Your task to perform on an android device: Clear the shopping cart on bestbuy. Search for alienware area 51 on bestbuy, select the first entry, and add it to the cart. Image 0: 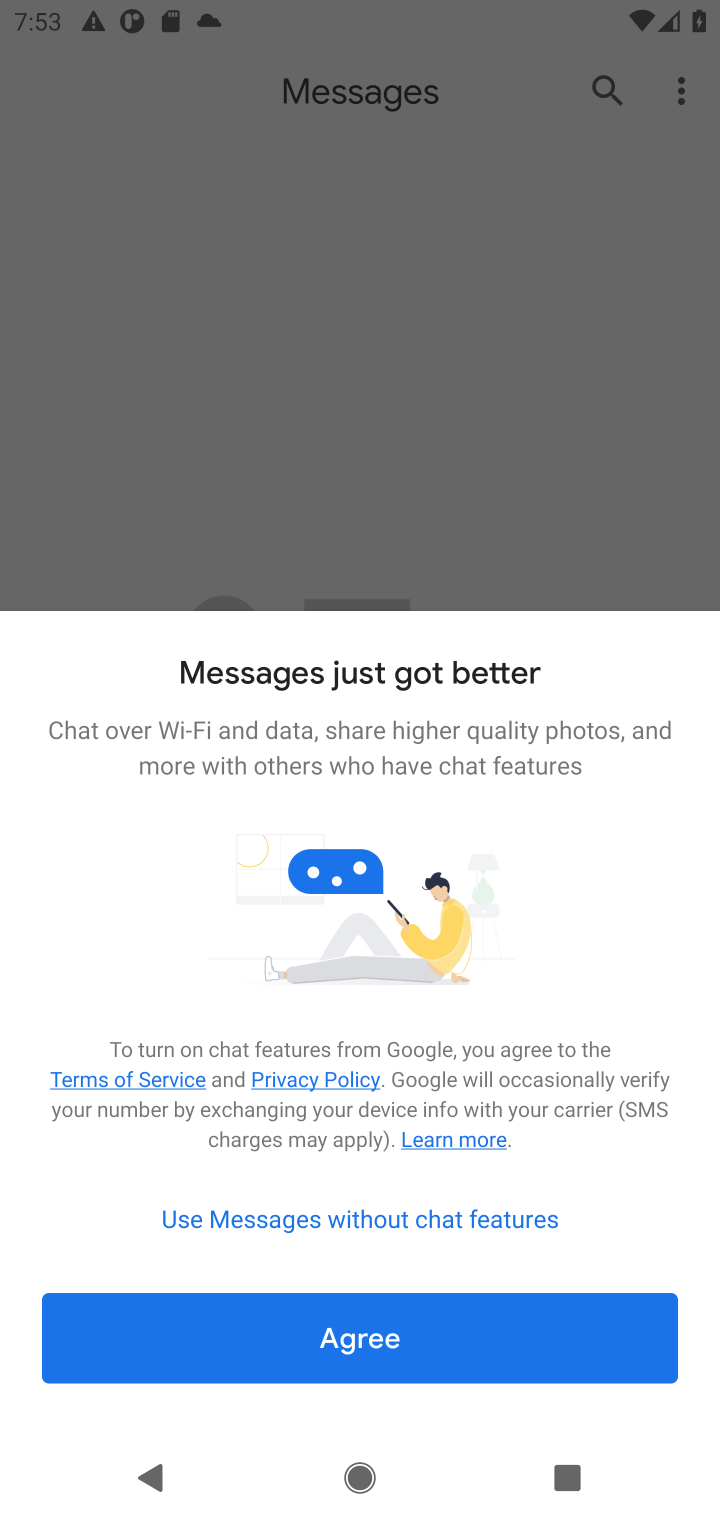
Step 0: press home button
Your task to perform on an android device: Clear the shopping cart on bestbuy. Search for alienware area 51 on bestbuy, select the first entry, and add it to the cart. Image 1: 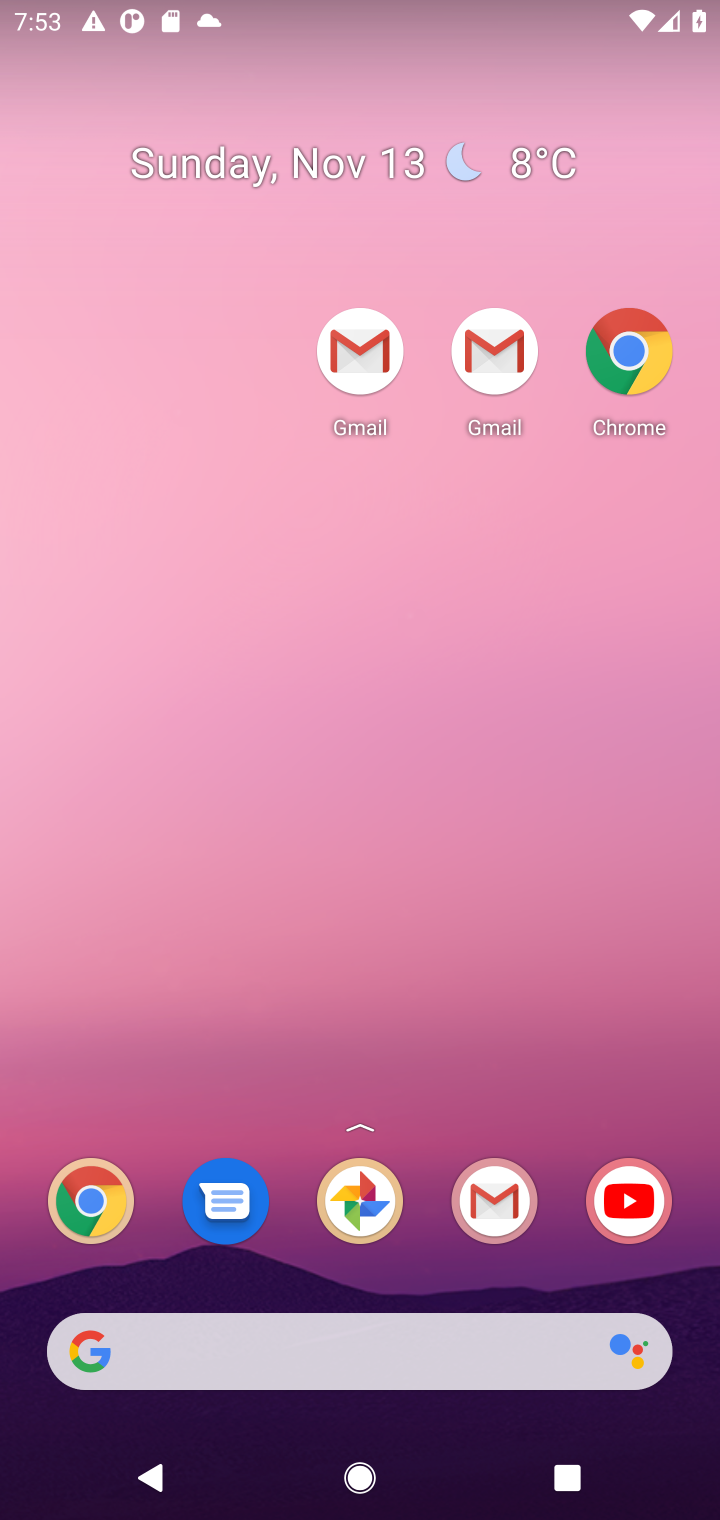
Step 1: drag from (426, 1278) to (229, 193)
Your task to perform on an android device: Clear the shopping cart on bestbuy. Search for alienware area 51 on bestbuy, select the first entry, and add it to the cart. Image 2: 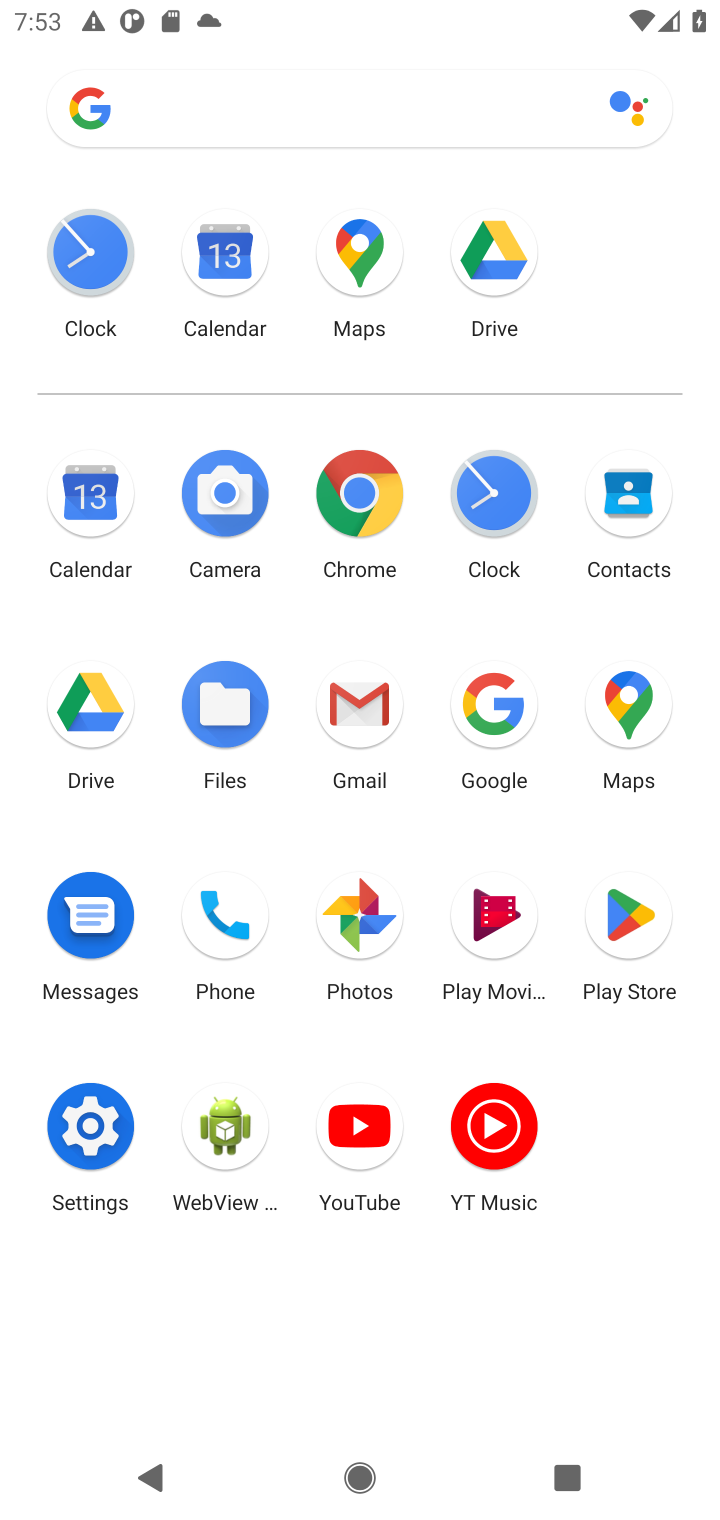
Step 2: click (364, 495)
Your task to perform on an android device: Clear the shopping cart on bestbuy. Search for alienware area 51 on bestbuy, select the first entry, and add it to the cart. Image 3: 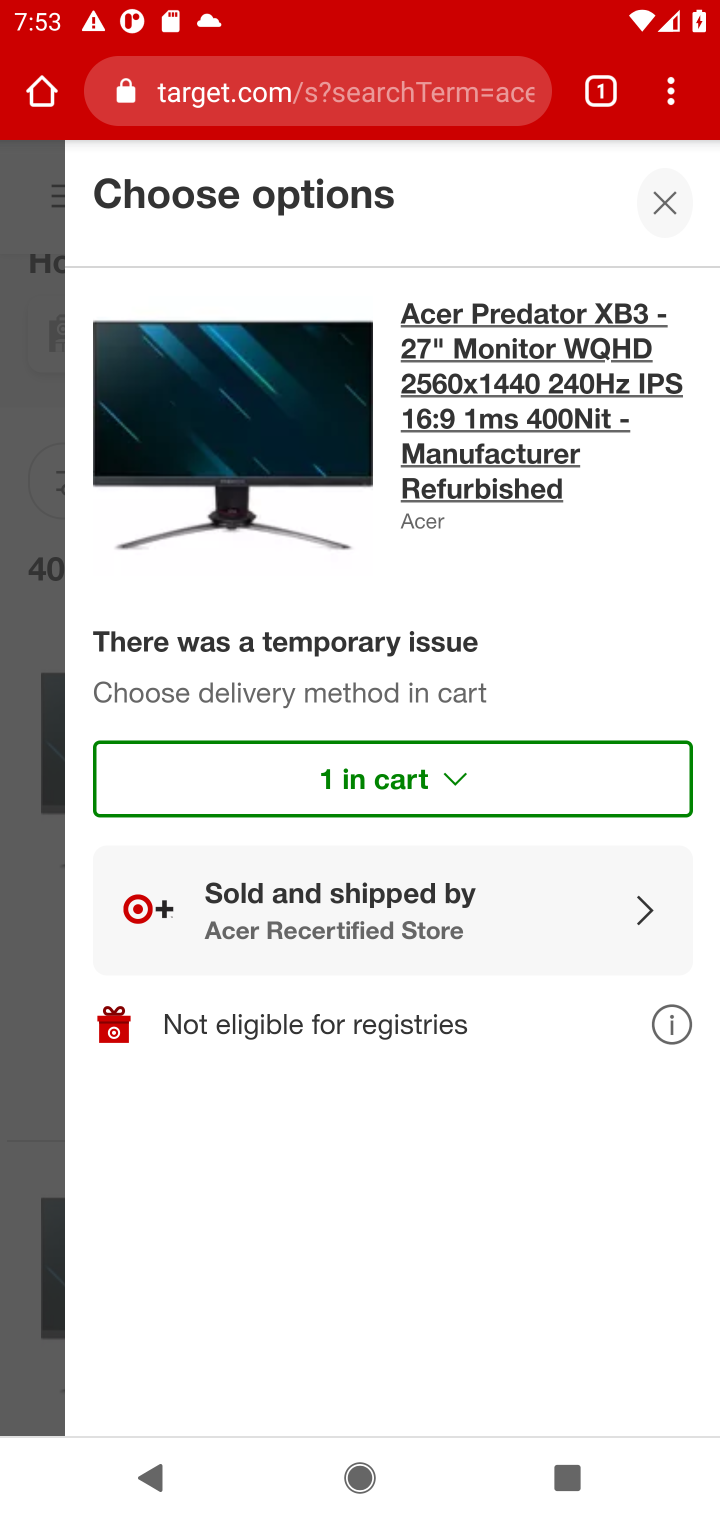
Step 3: click (445, 110)
Your task to perform on an android device: Clear the shopping cart on bestbuy. Search for alienware area 51 on bestbuy, select the first entry, and add it to the cart. Image 4: 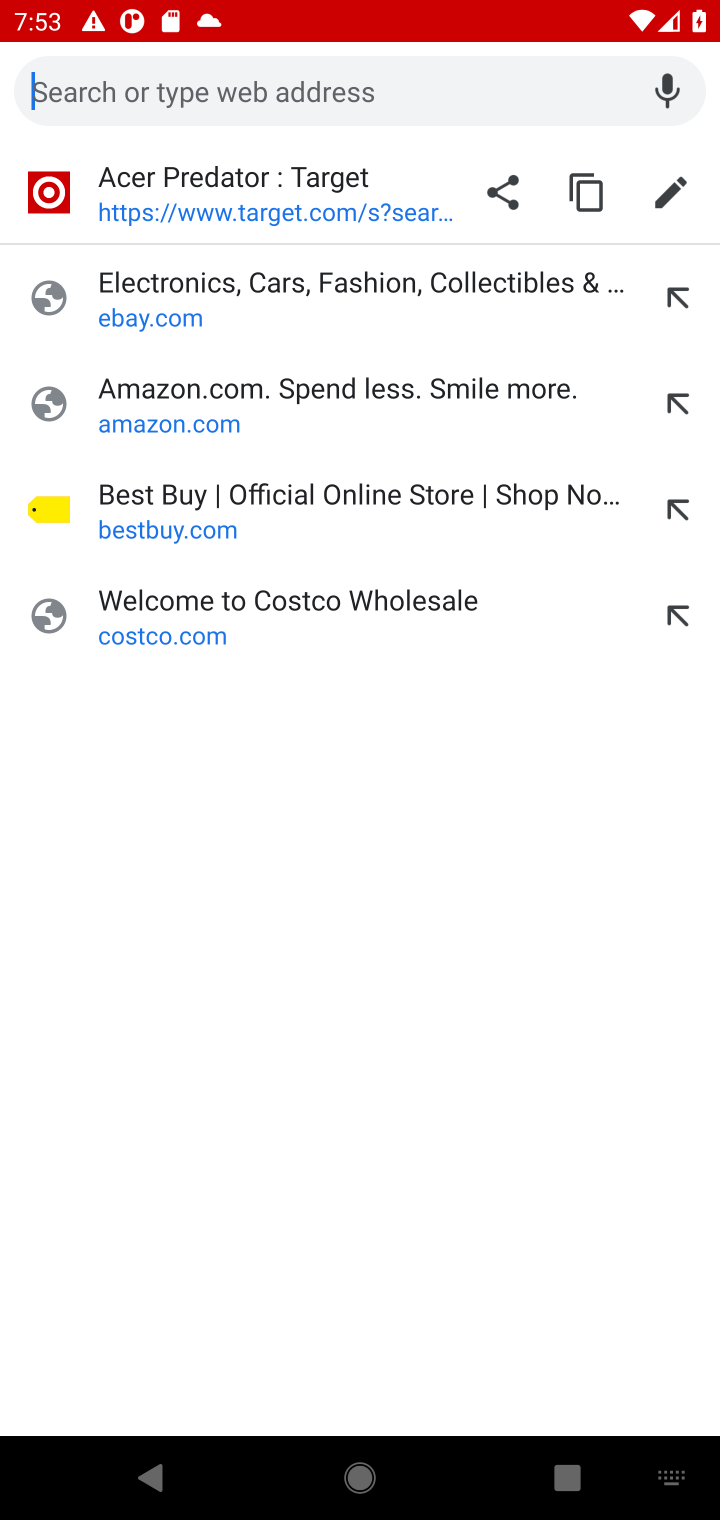
Step 4: type "bestbuy.com"
Your task to perform on an android device: Clear the shopping cart on bestbuy. Search for alienware area 51 on bestbuy, select the first entry, and add it to the cart. Image 5: 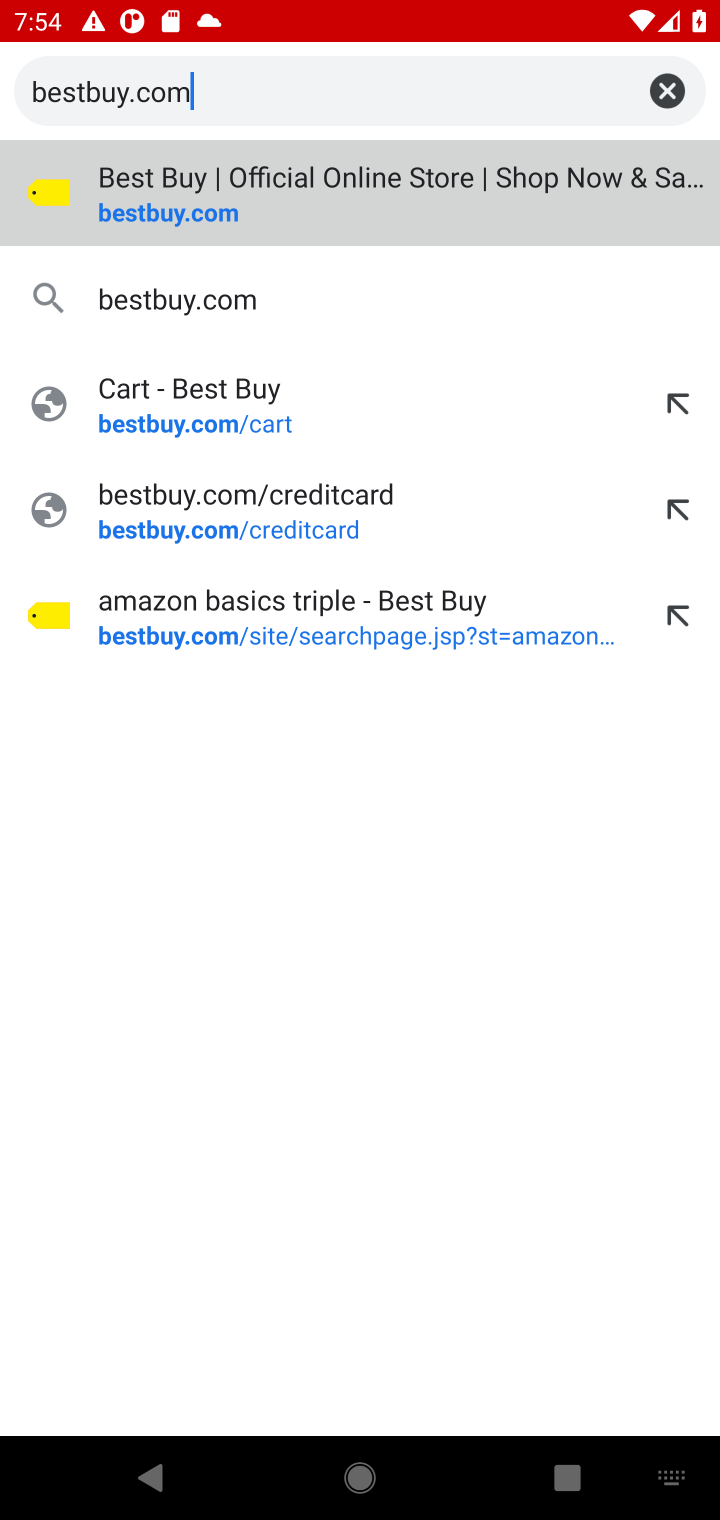
Step 5: press enter
Your task to perform on an android device: Clear the shopping cart on bestbuy. Search for alienware area 51 on bestbuy, select the first entry, and add it to the cart. Image 6: 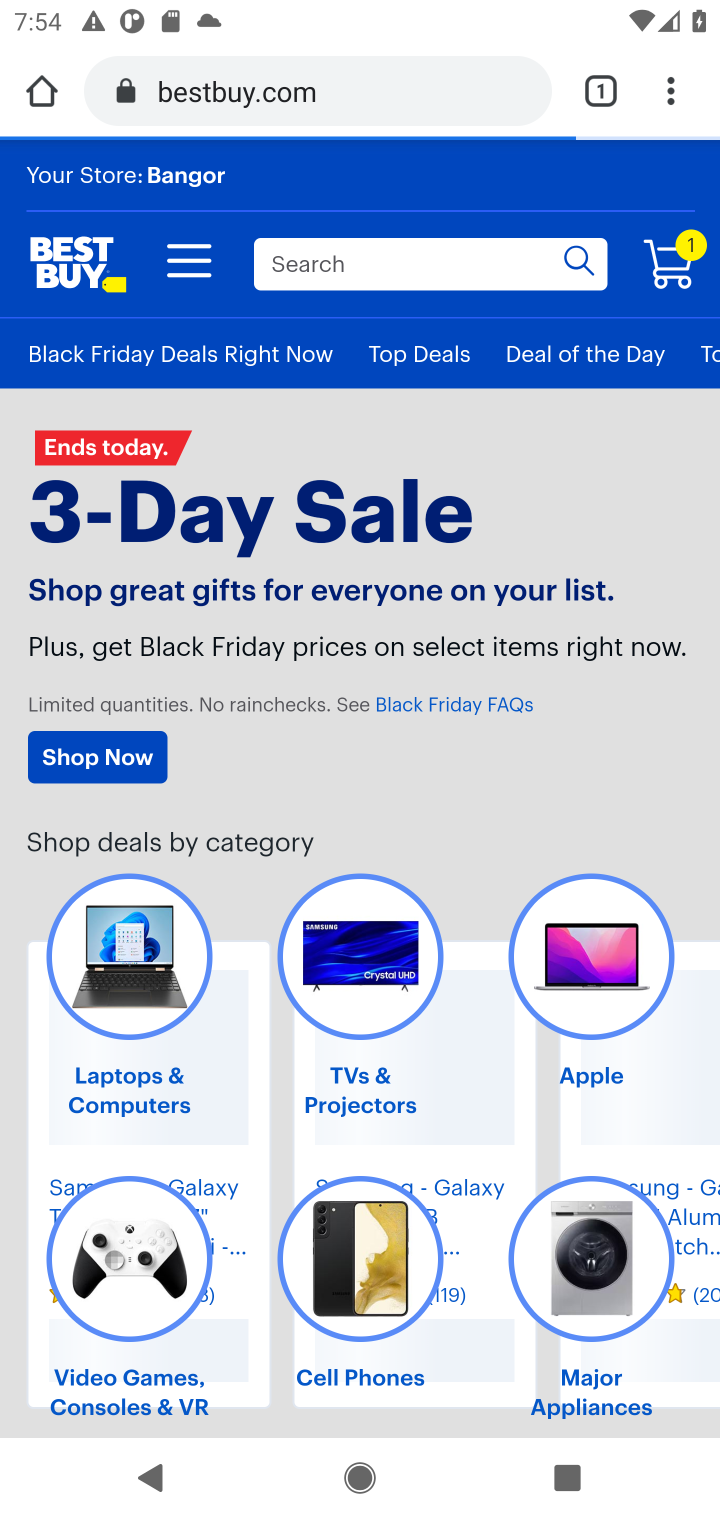
Step 6: click (667, 266)
Your task to perform on an android device: Clear the shopping cart on bestbuy. Search for alienware area 51 on bestbuy, select the first entry, and add it to the cart. Image 7: 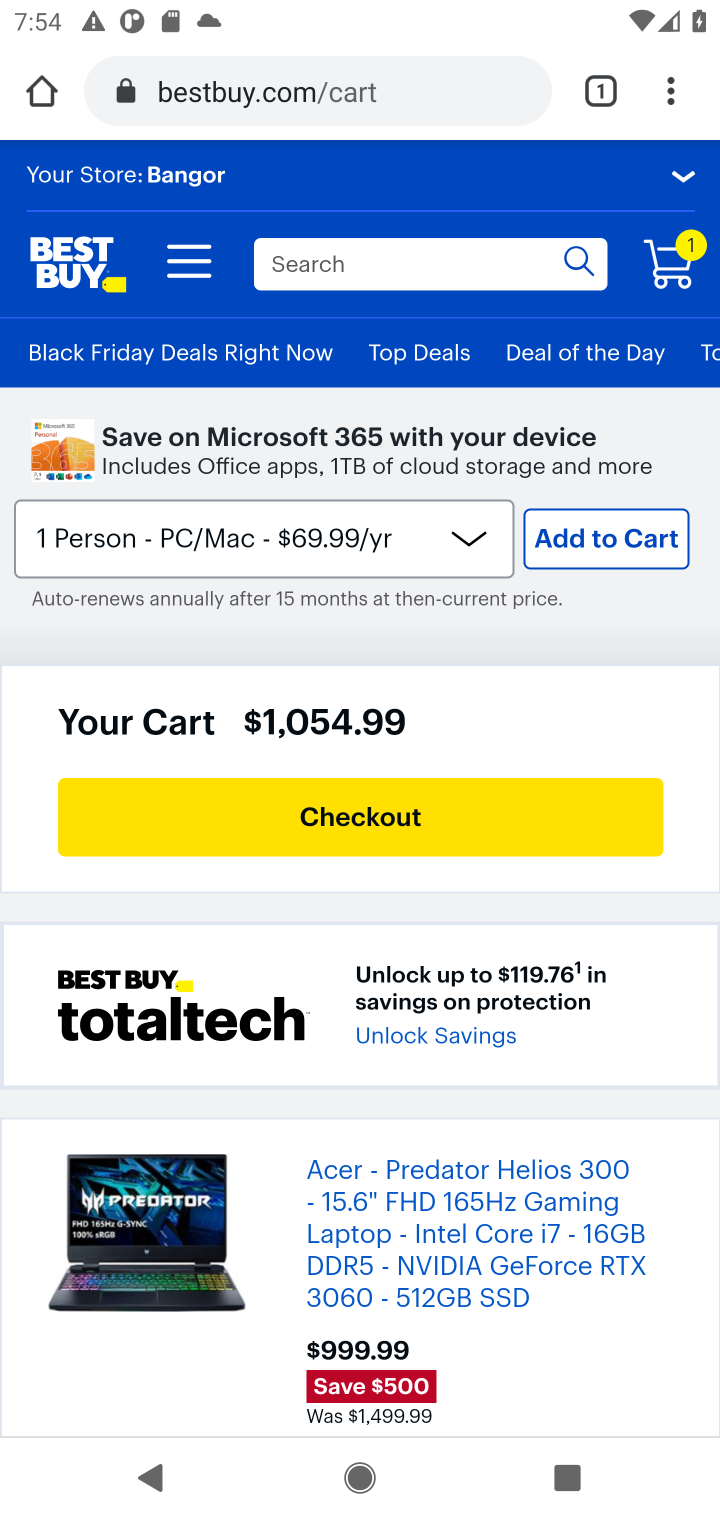
Step 7: drag from (556, 1405) to (327, 707)
Your task to perform on an android device: Clear the shopping cart on bestbuy. Search for alienware area 51 on bestbuy, select the first entry, and add it to the cart. Image 8: 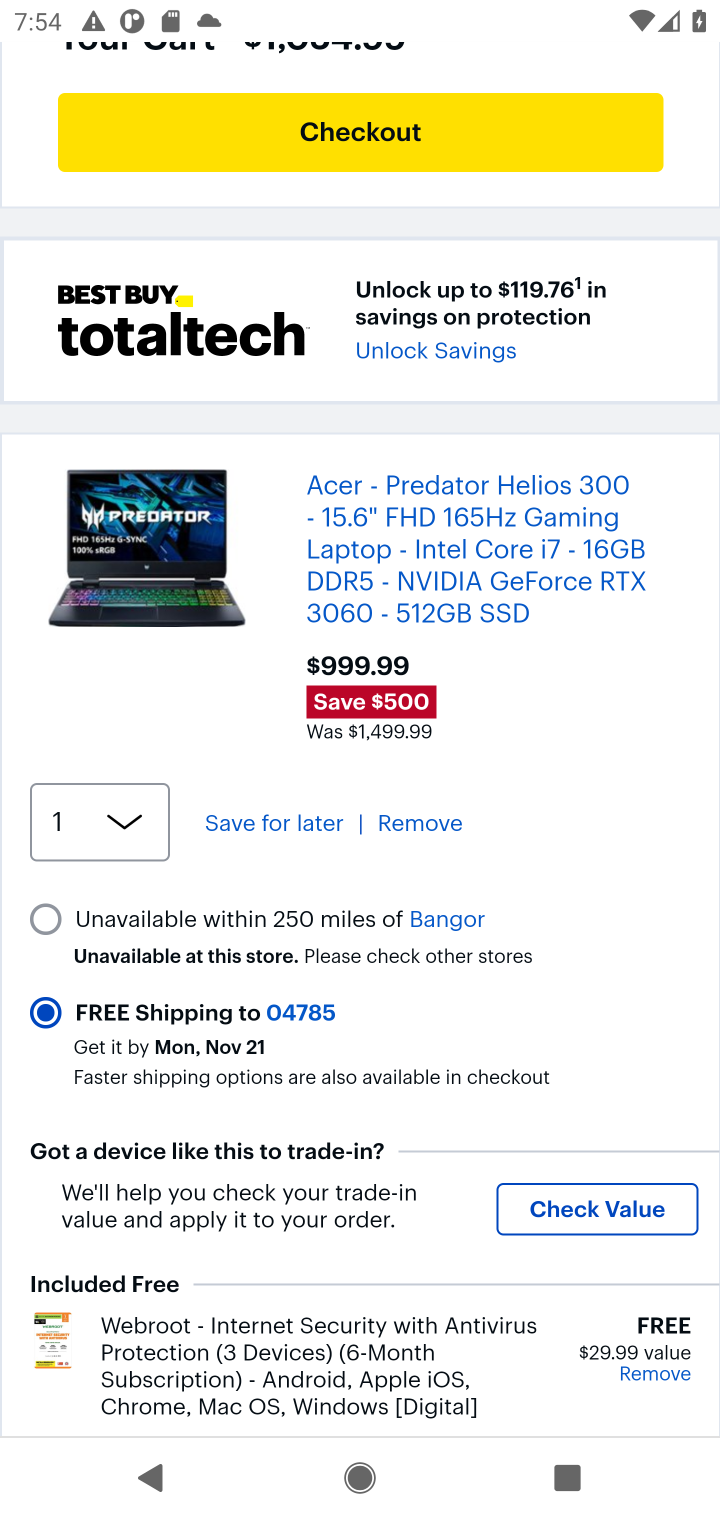
Step 8: click (422, 826)
Your task to perform on an android device: Clear the shopping cart on bestbuy. Search for alienware area 51 on bestbuy, select the first entry, and add it to the cart. Image 9: 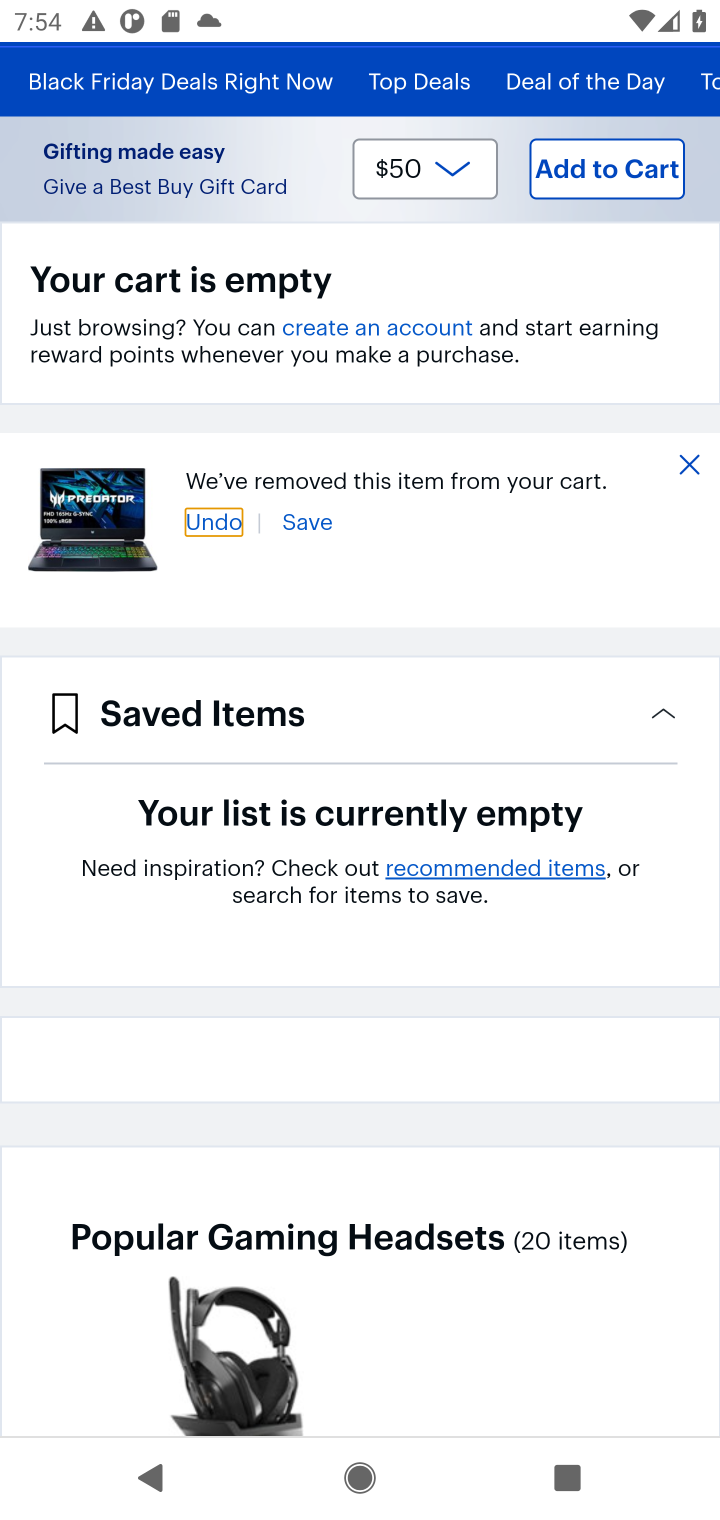
Step 9: drag from (461, 287) to (473, 609)
Your task to perform on an android device: Clear the shopping cart on bestbuy. Search for alienware area 51 on bestbuy, select the first entry, and add it to the cart. Image 10: 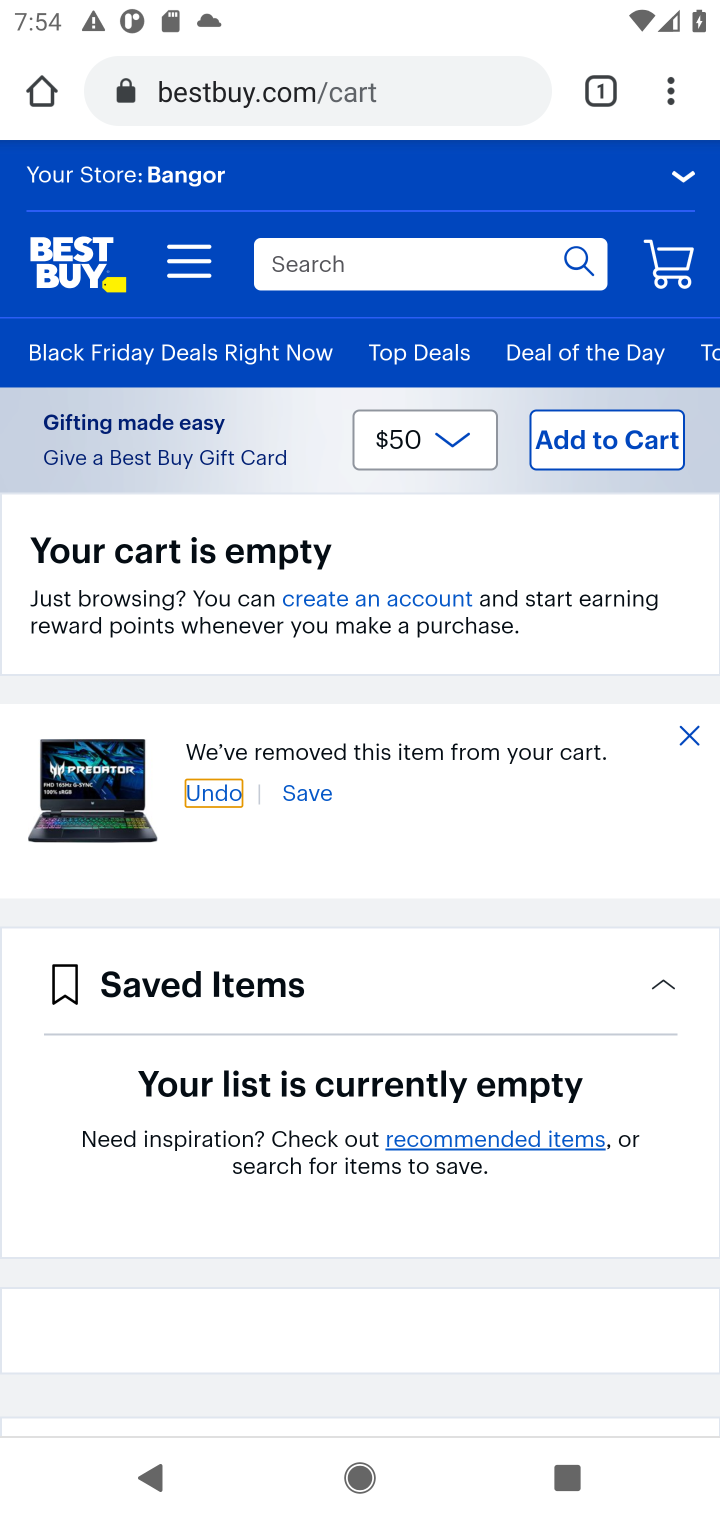
Step 10: click (427, 268)
Your task to perform on an android device: Clear the shopping cart on bestbuy. Search for alienware area 51 on bestbuy, select the first entry, and add it to the cart. Image 11: 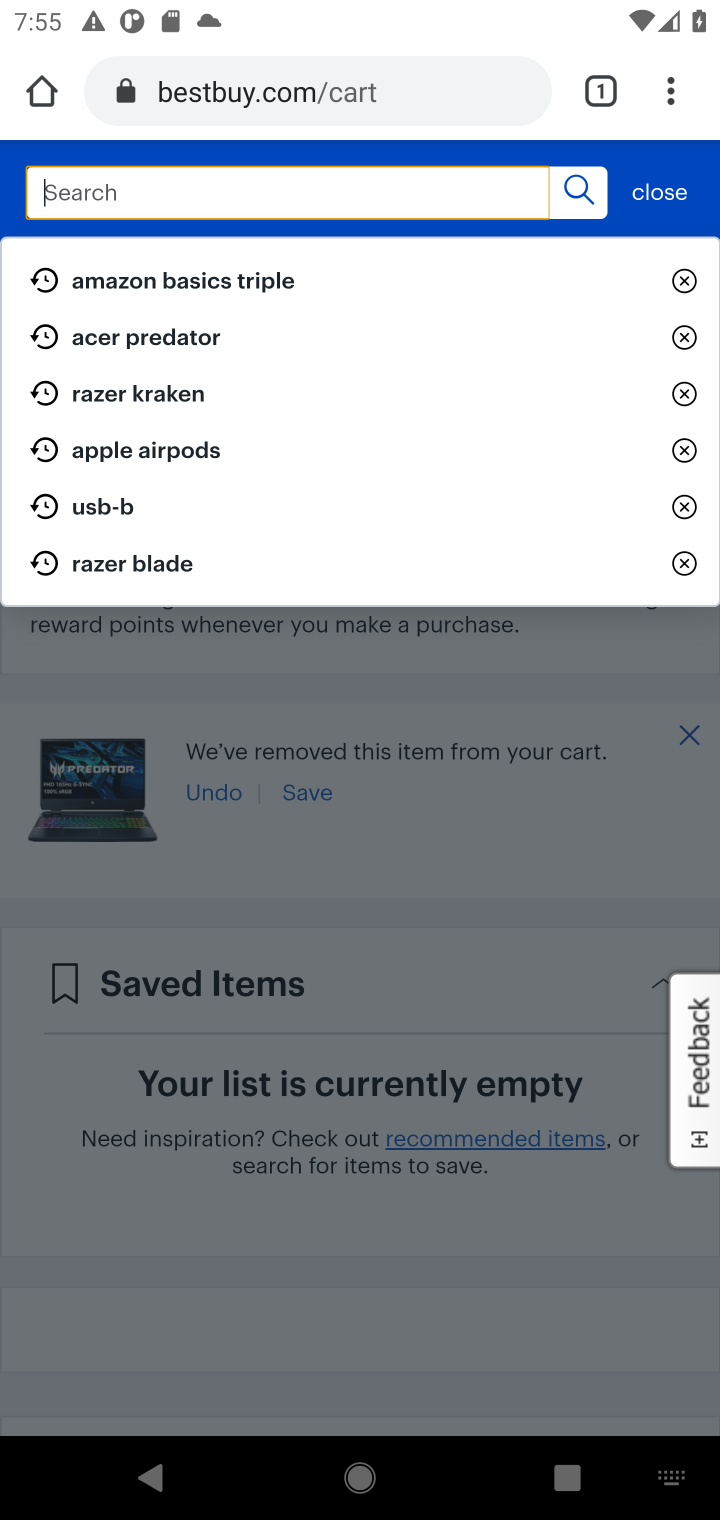
Step 11: type "alienware area 51"
Your task to perform on an android device: Clear the shopping cart on bestbuy. Search for alienware area 51 on bestbuy, select the first entry, and add it to the cart. Image 12: 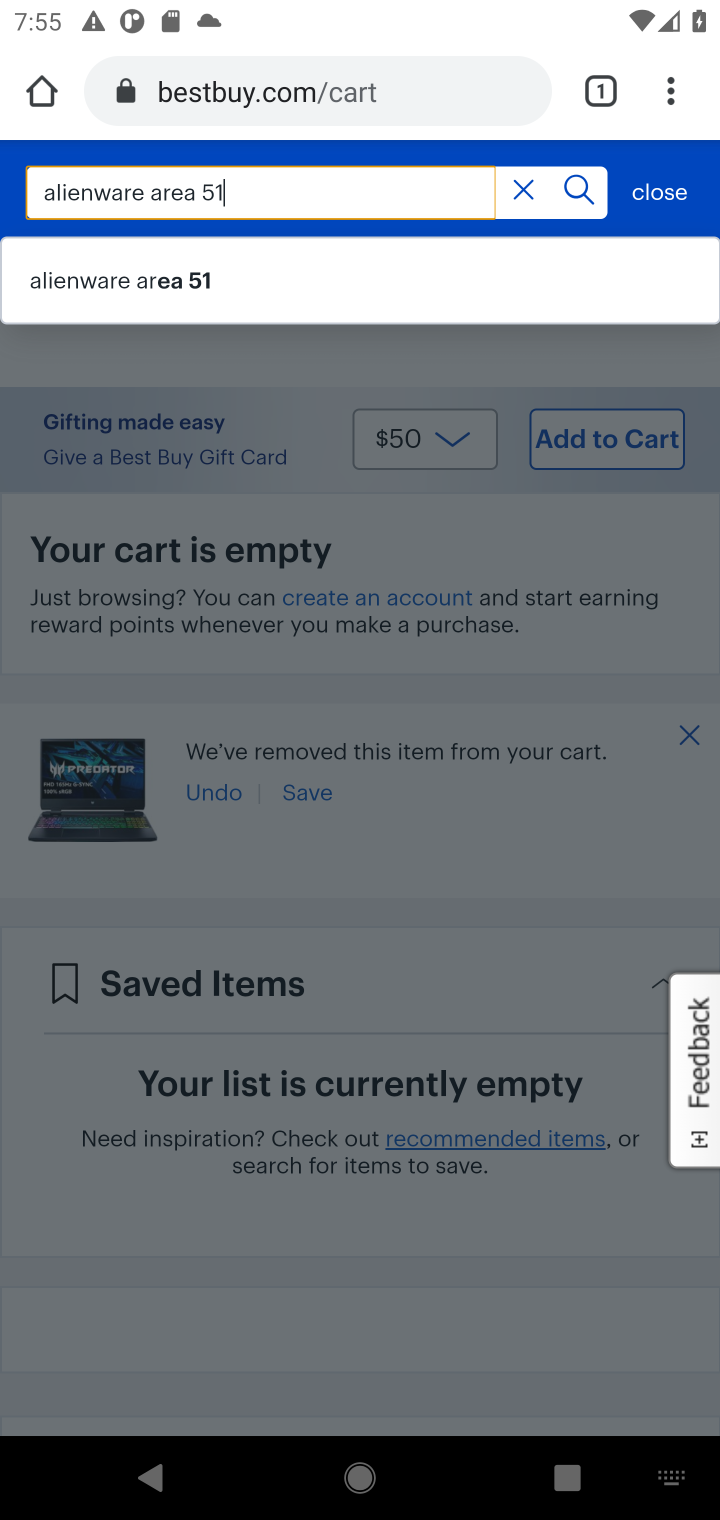
Step 12: press enter
Your task to perform on an android device: Clear the shopping cart on bestbuy. Search for alienware area 51 on bestbuy, select the first entry, and add it to the cart. Image 13: 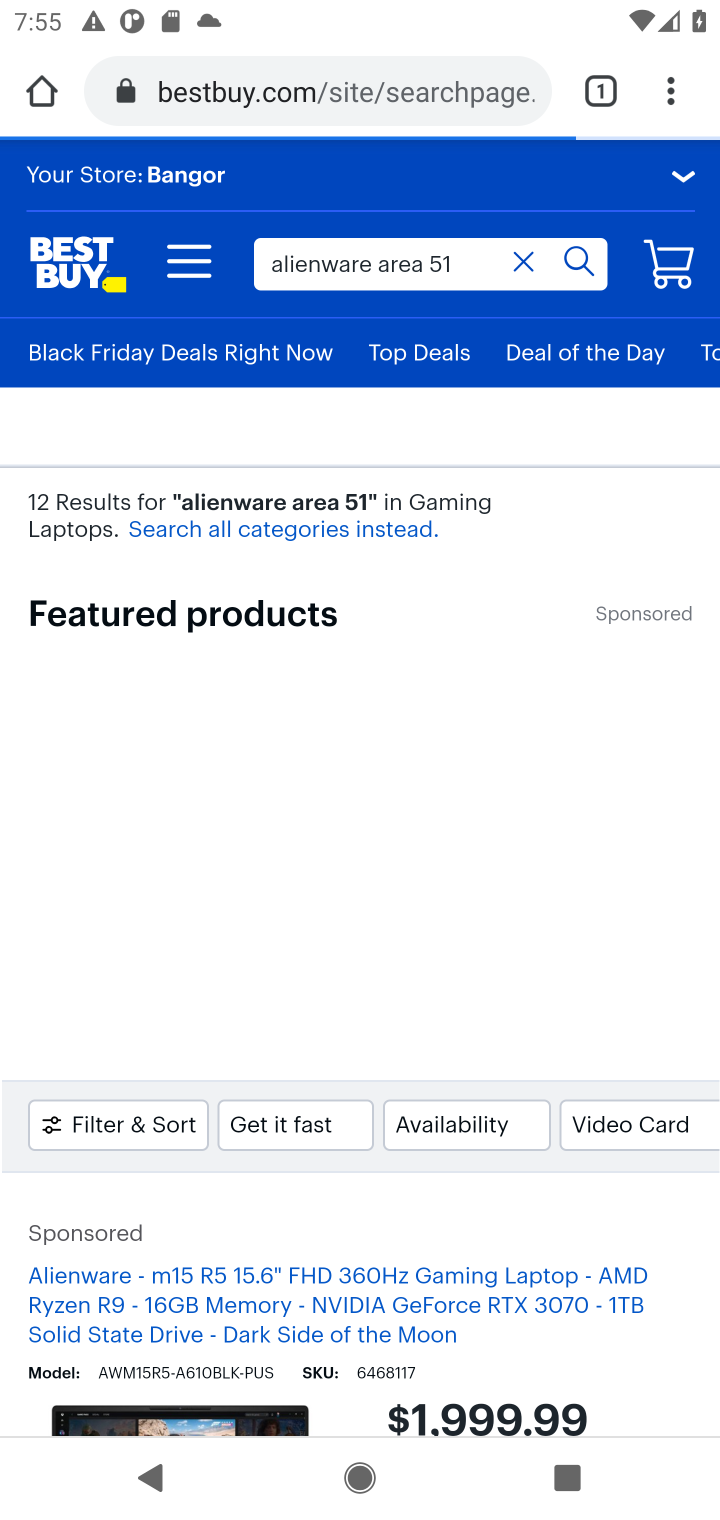
Step 13: drag from (513, 1302) to (424, 637)
Your task to perform on an android device: Clear the shopping cart on bestbuy. Search for alienware area 51 on bestbuy, select the first entry, and add it to the cart. Image 14: 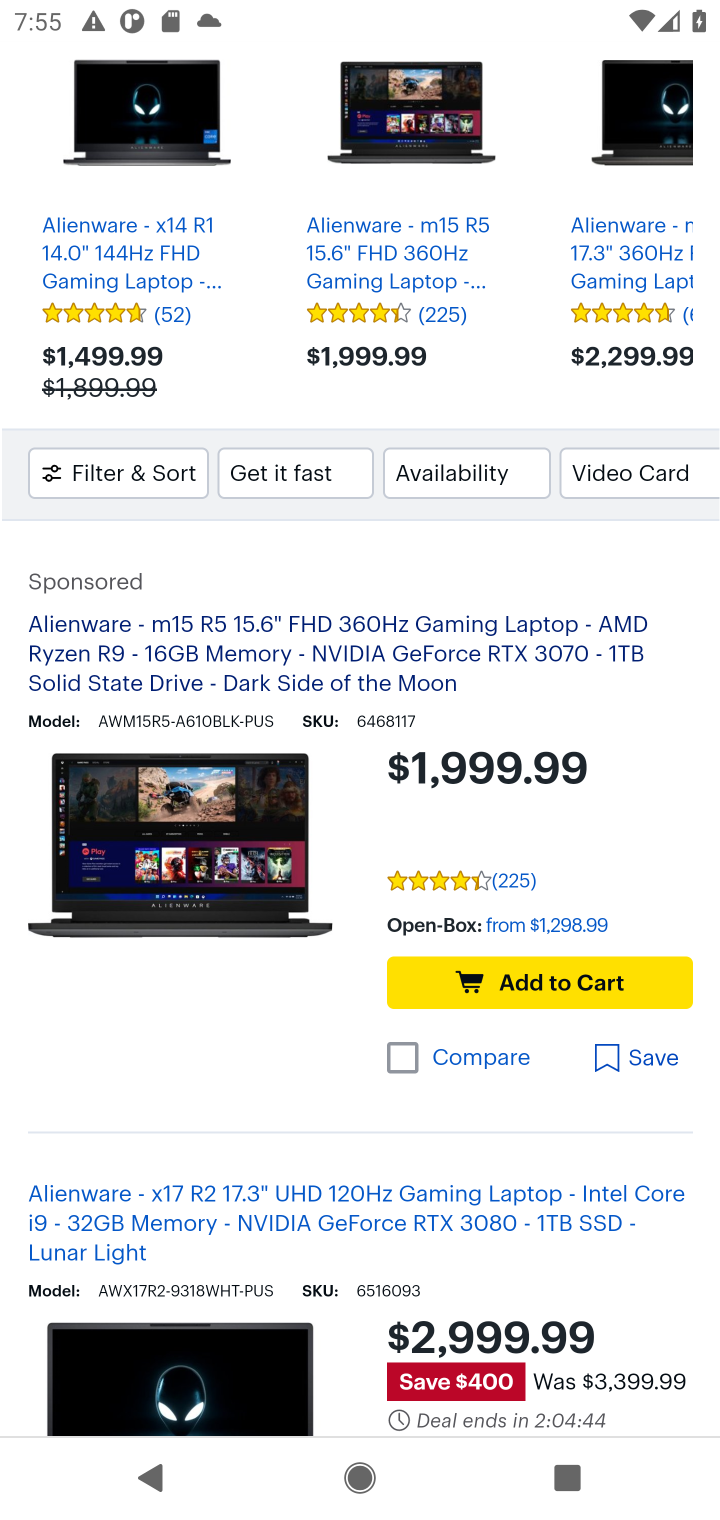
Step 14: drag from (305, 1237) to (313, 687)
Your task to perform on an android device: Clear the shopping cart on bestbuy. Search for alienware area 51 on bestbuy, select the first entry, and add it to the cart. Image 15: 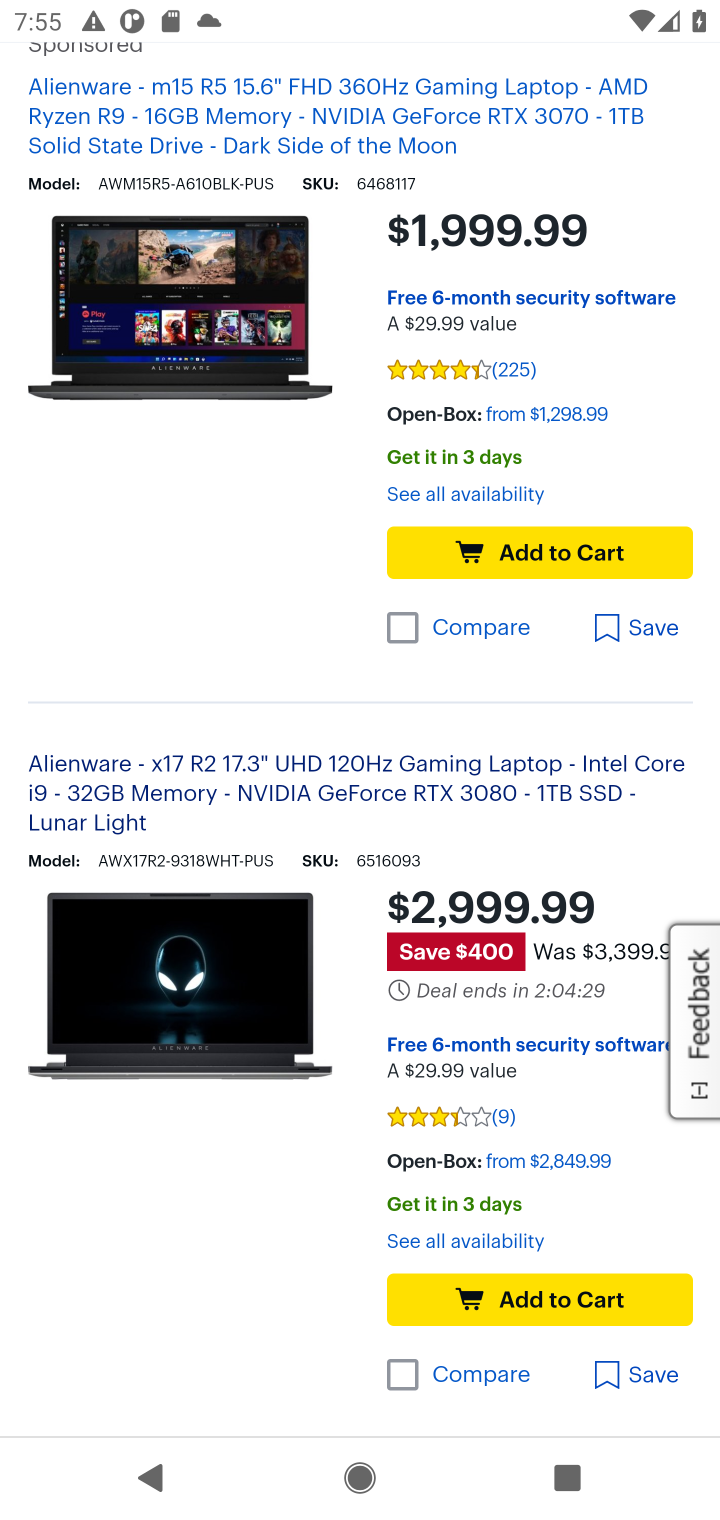
Step 15: drag from (502, 1119) to (462, 513)
Your task to perform on an android device: Clear the shopping cart on bestbuy. Search for alienware area 51 on bestbuy, select the first entry, and add it to the cart. Image 16: 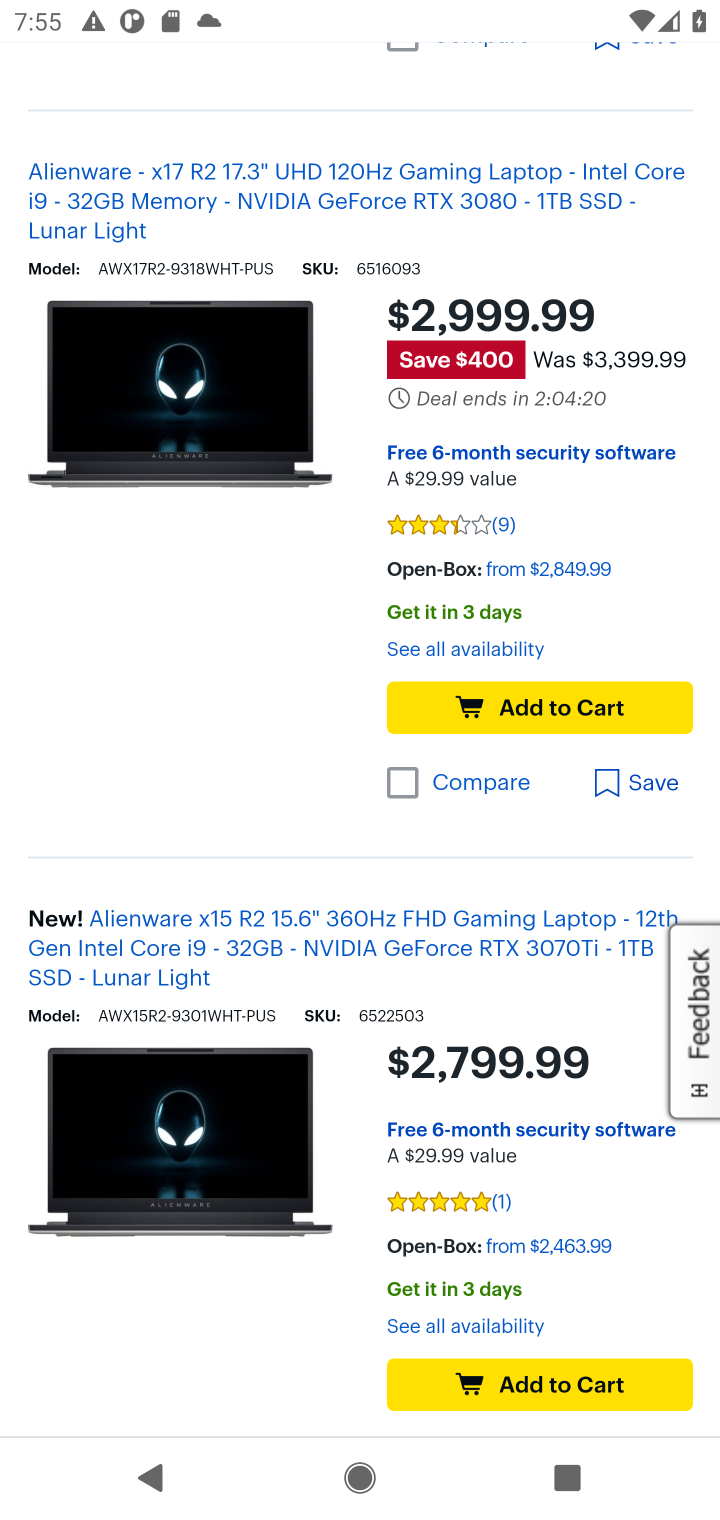
Step 16: drag from (272, 1238) to (236, 962)
Your task to perform on an android device: Clear the shopping cart on bestbuy. Search for alienware area 51 on bestbuy, select the first entry, and add it to the cart. Image 17: 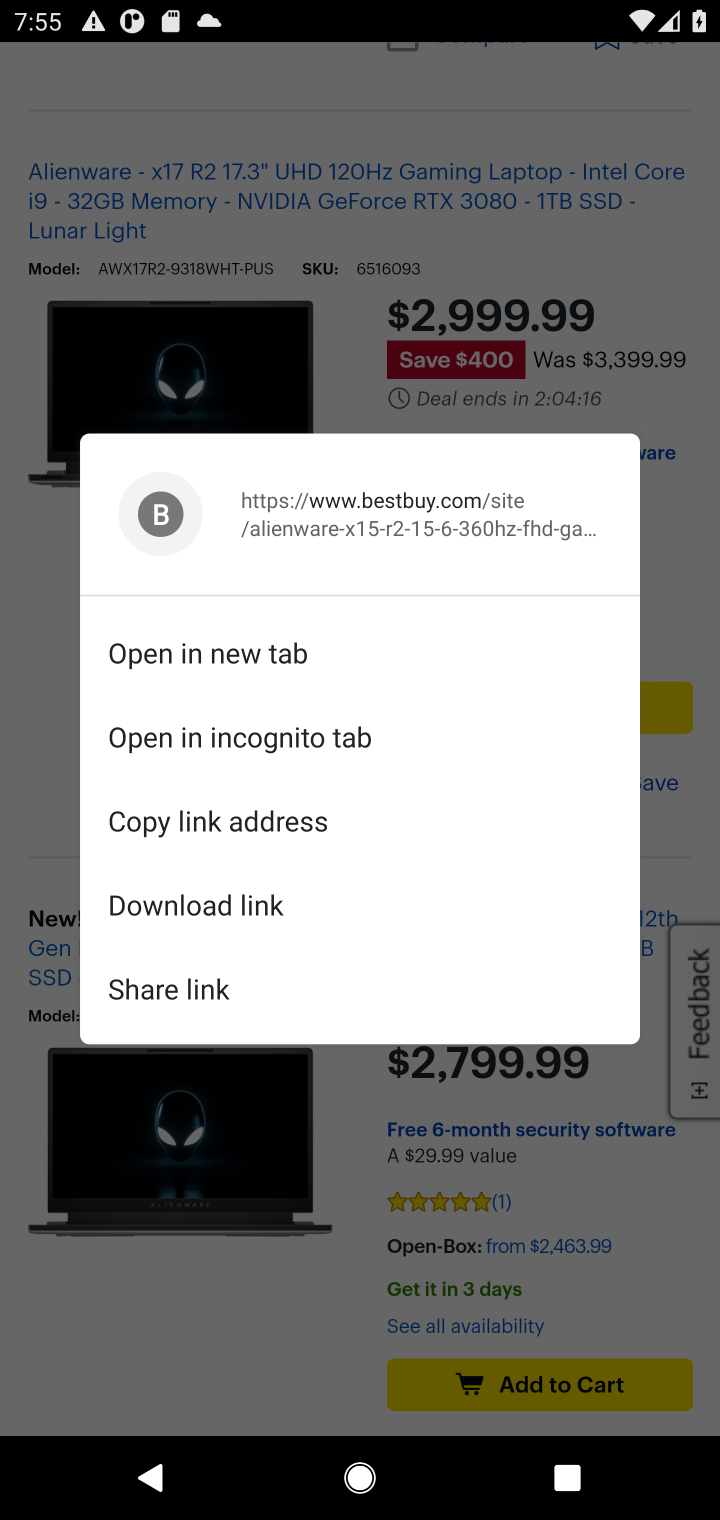
Step 17: click (347, 331)
Your task to perform on an android device: Clear the shopping cart on bestbuy. Search for alienware area 51 on bestbuy, select the first entry, and add it to the cart. Image 18: 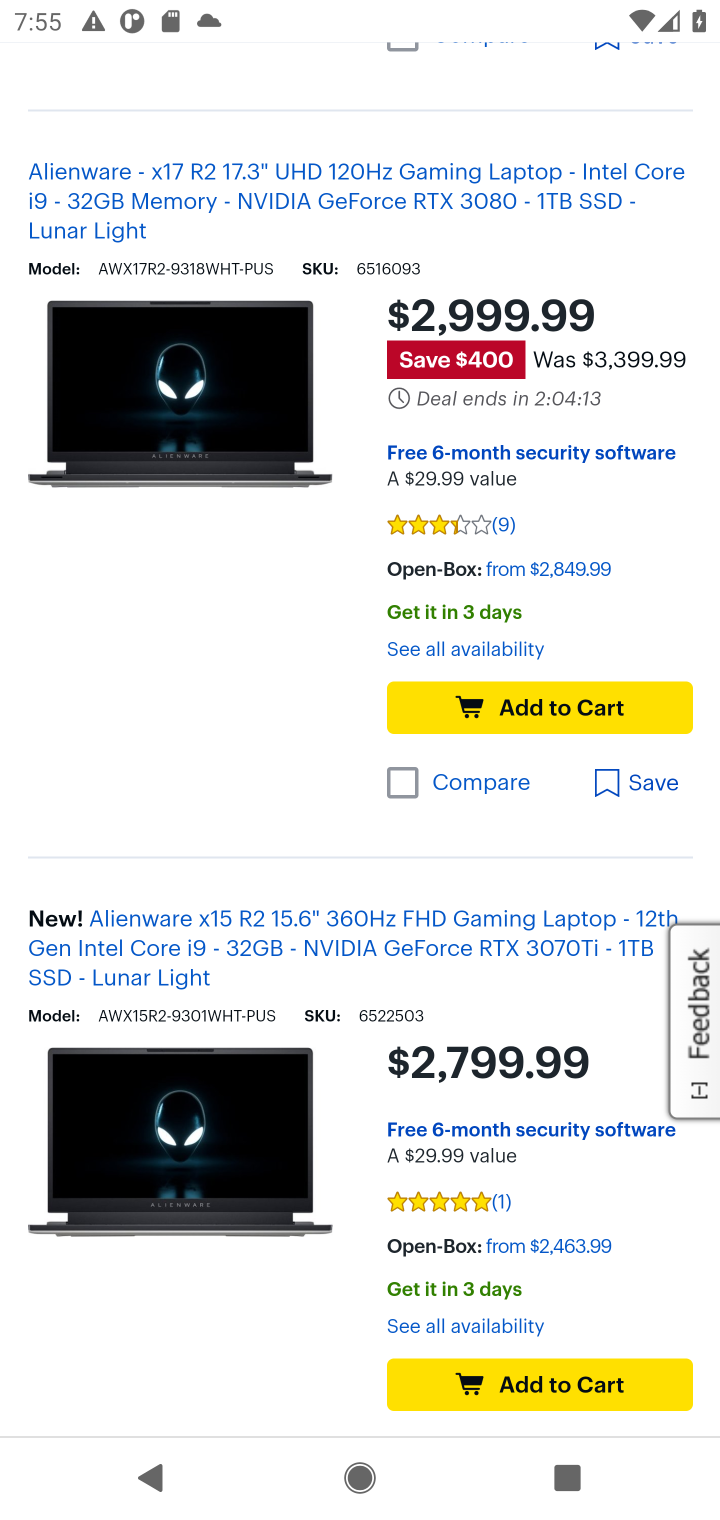
Step 18: task complete